Your task to perform on an android device: turn off translation in the chrome app Image 0: 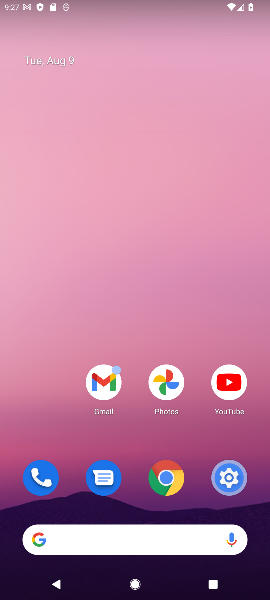
Step 0: click (156, 478)
Your task to perform on an android device: turn off translation in the chrome app Image 1: 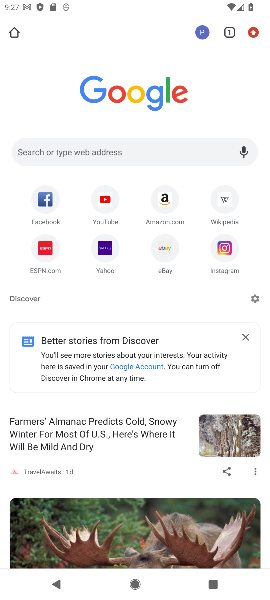
Step 1: task complete